Your task to perform on an android device: turn off picture-in-picture Image 0: 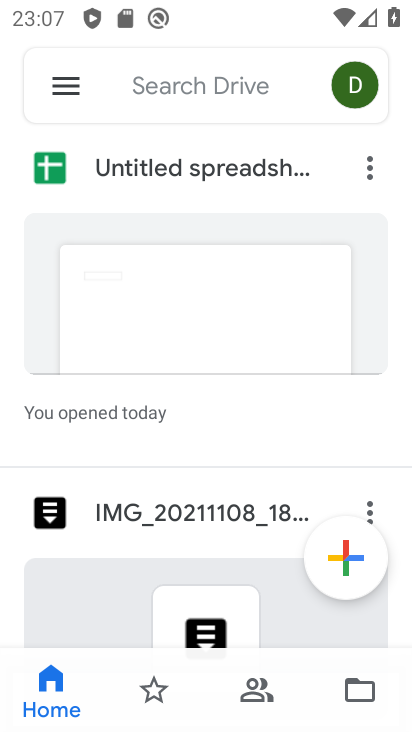
Step 0: press home button
Your task to perform on an android device: turn off picture-in-picture Image 1: 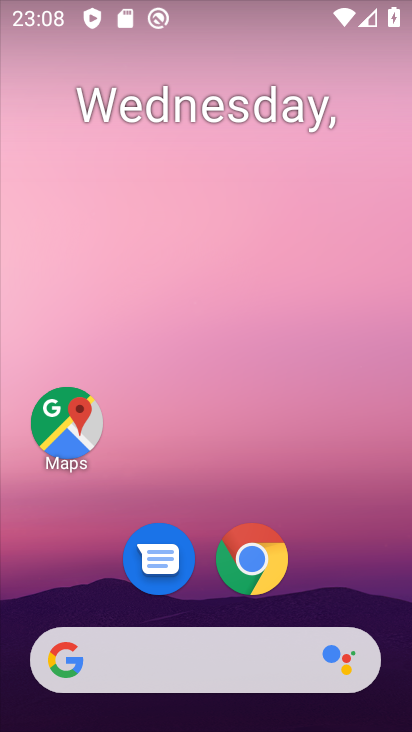
Step 1: drag from (199, 592) to (253, 192)
Your task to perform on an android device: turn off picture-in-picture Image 2: 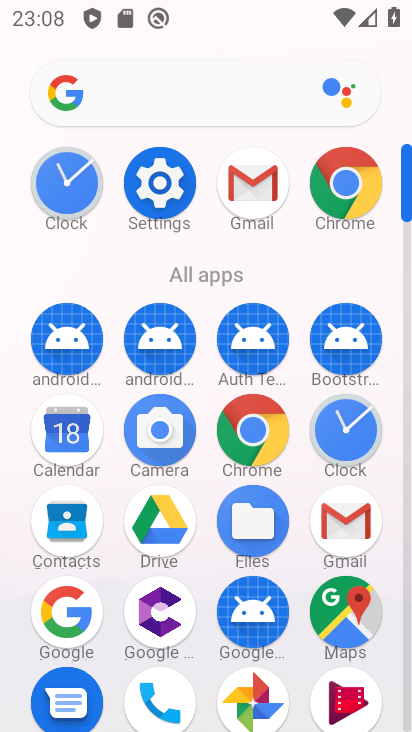
Step 2: click (160, 181)
Your task to perform on an android device: turn off picture-in-picture Image 3: 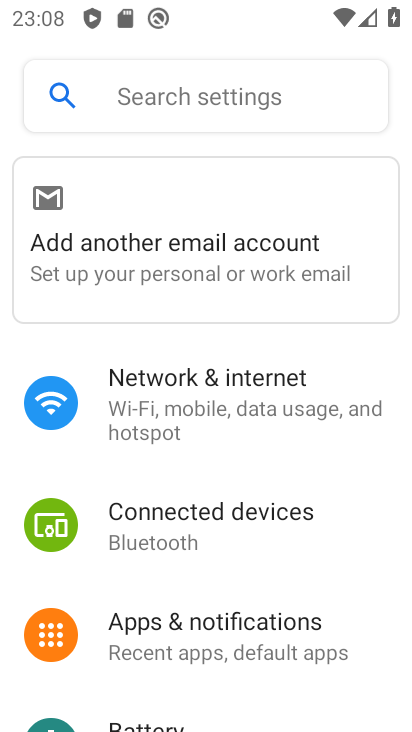
Step 3: drag from (254, 673) to (338, 292)
Your task to perform on an android device: turn off picture-in-picture Image 4: 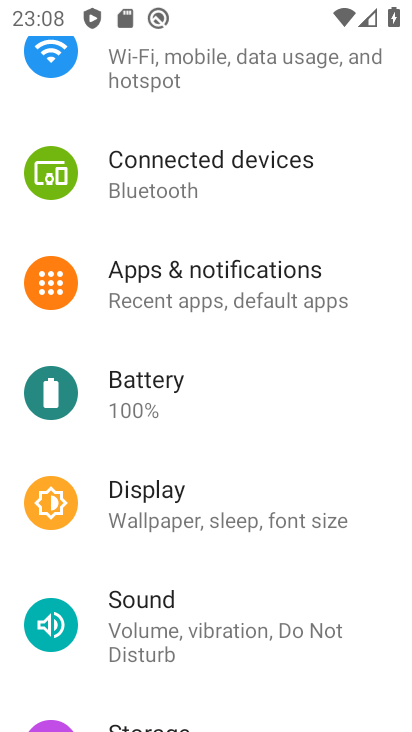
Step 4: drag from (188, 578) to (298, 113)
Your task to perform on an android device: turn off picture-in-picture Image 5: 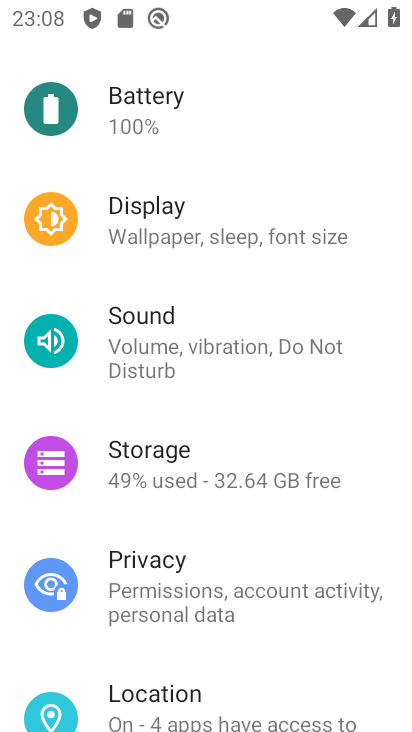
Step 5: drag from (197, 599) to (343, 225)
Your task to perform on an android device: turn off picture-in-picture Image 6: 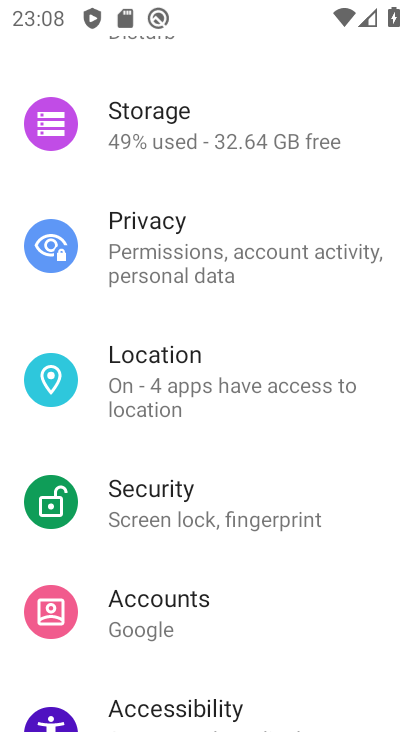
Step 6: drag from (227, 501) to (295, 222)
Your task to perform on an android device: turn off picture-in-picture Image 7: 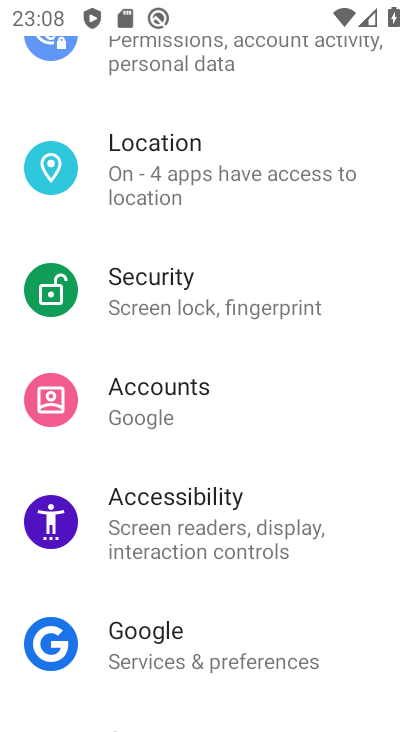
Step 7: drag from (203, 653) to (284, 228)
Your task to perform on an android device: turn off picture-in-picture Image 8: 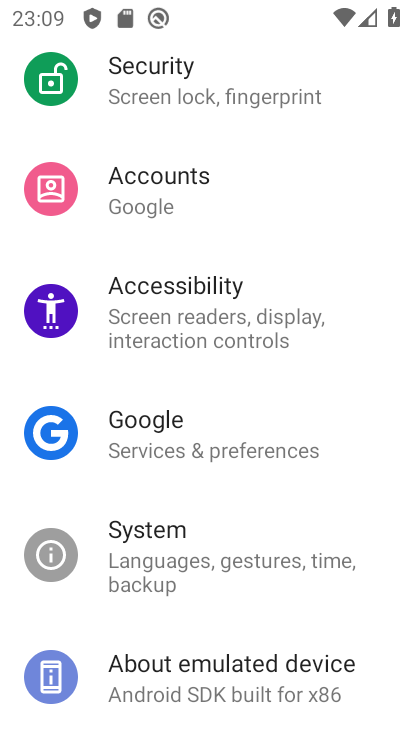
Step 8: drag from (223, 161) to (198, 591)
Your task to perform on an android device: turn off picture-in-picture Image 9: 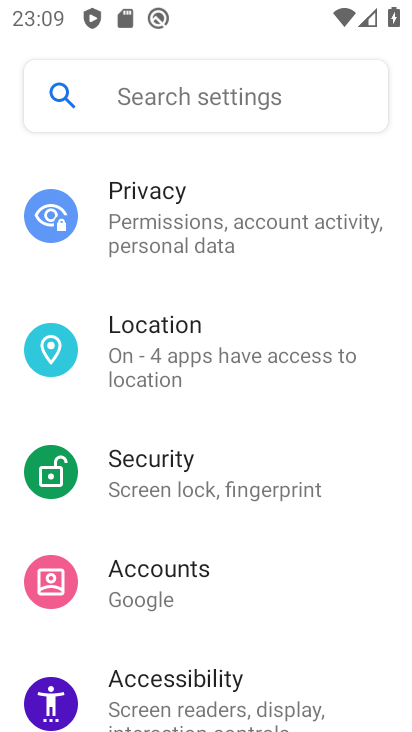
Step 9: drag from (314, 270) to (304, 638)
Your task to perform on an android device: turn off picture-in-picture Image 10: 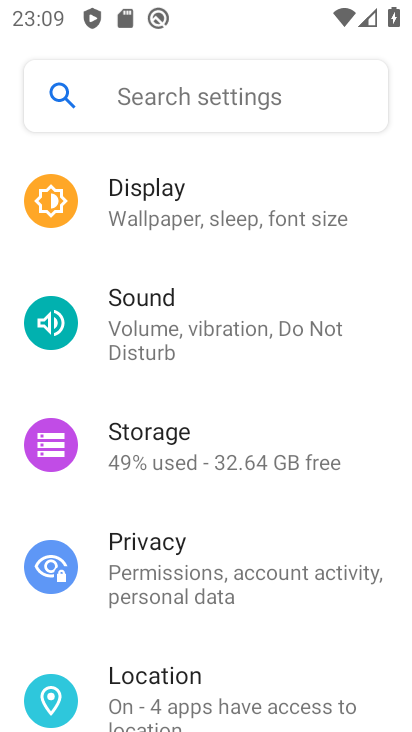
Step 10: drag from (283, 195) to (277, 602)
Your task to perform on an android device: turn off picture-in-picture Image 11: 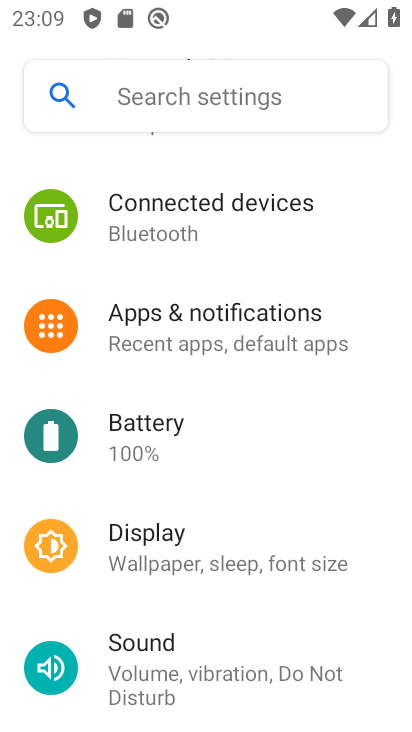
Step 11: click (216, 329)
Your task to perform on an android device: turn off picture-in-picture Image 12: 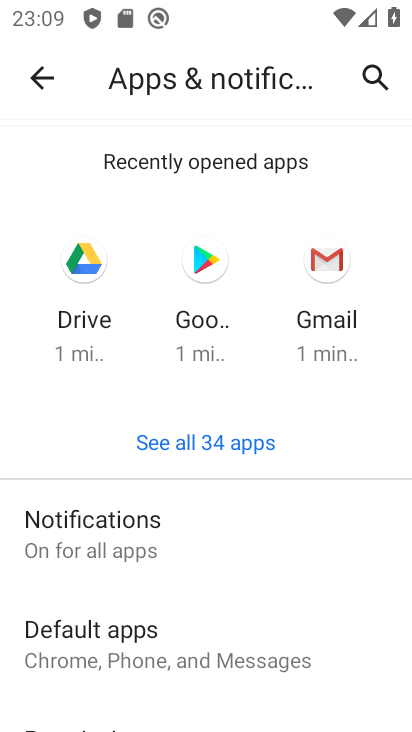
Step 12: drag from (213, 588) to (288, 213)
Your task to perform on an android device: turn off picture-in-picture Image 13: 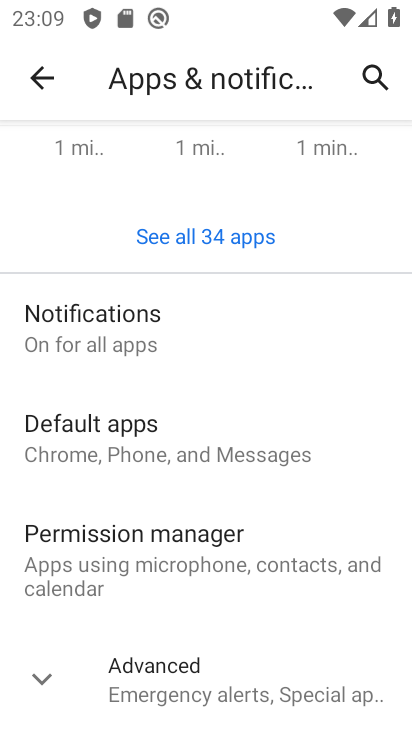
Step 13: click (37, 668)
Your task to perform on an android device: turn off picture-in-picture Image 14: 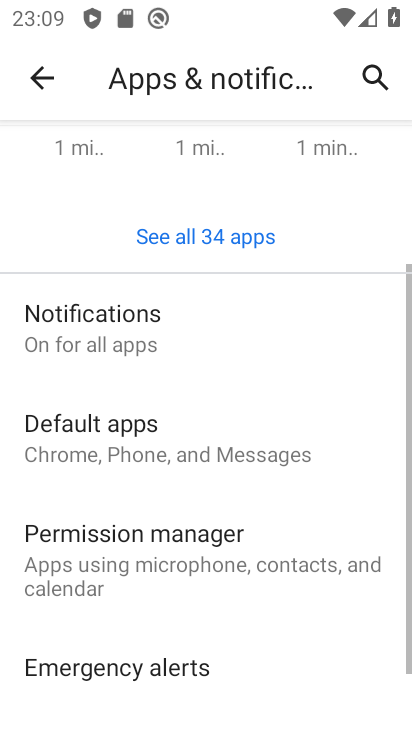
Step 14: drag from (140, 627) to (244, 177)
Your task to perform on an android device: turn off picture-in-picture Image 15: 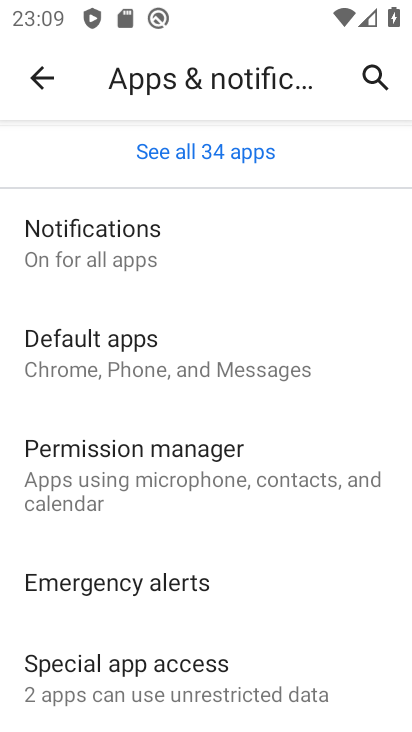
Step 15: click (82, 678)
Your task to perform on an android device: turn off picture-in-picture Image 16: 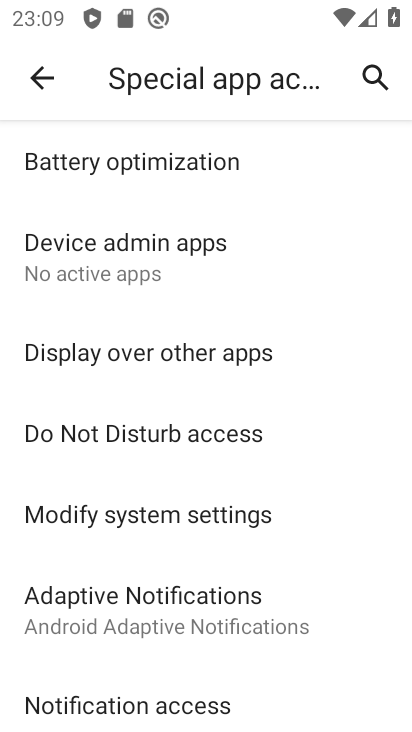
Step 16: drag from (170, 679) to (205, 468)
Your task to perform on an android device: turn off picture-in-picture Image 17: 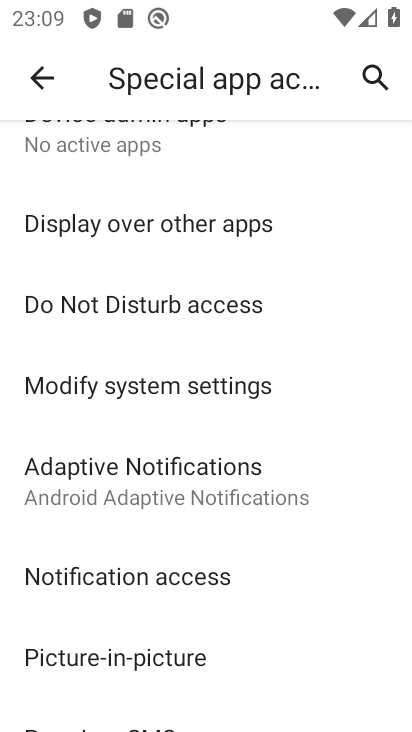
Step 17: click (123, 666)
Your task to perform on an android device: turn off picture-in-picture Image 18: 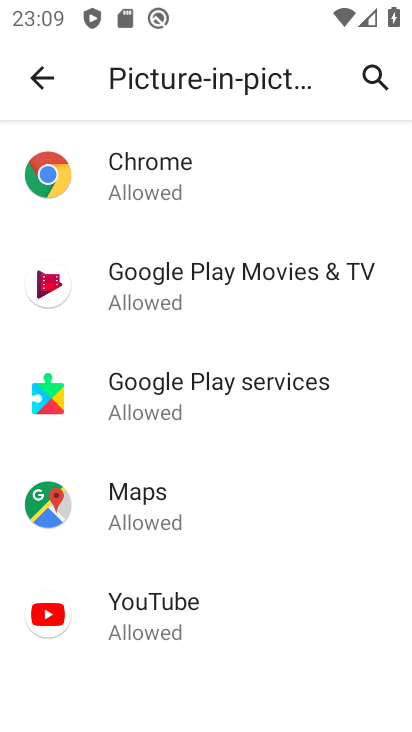
Step 18: task complete